Your task to perform on an android device: Go to Amazon Image 0: 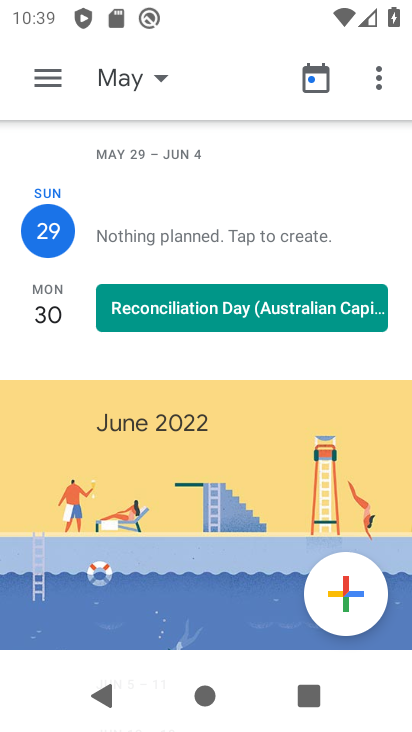
Step 0: press home button
Your task to perform on an android device: Go to Amazon Image 1: 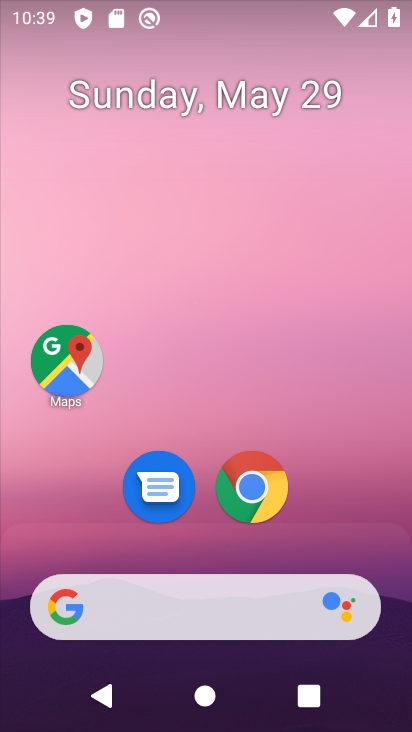
Step 1: click (242, 481)
Your task to perform on an android device: Go to Amazon Image 2: 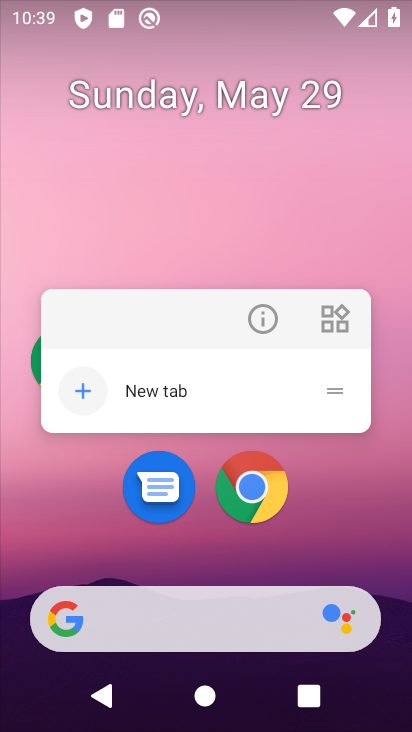
Step 2: click (248, 485)
Your task to perform on an android device: Go to Amazon Image 3: 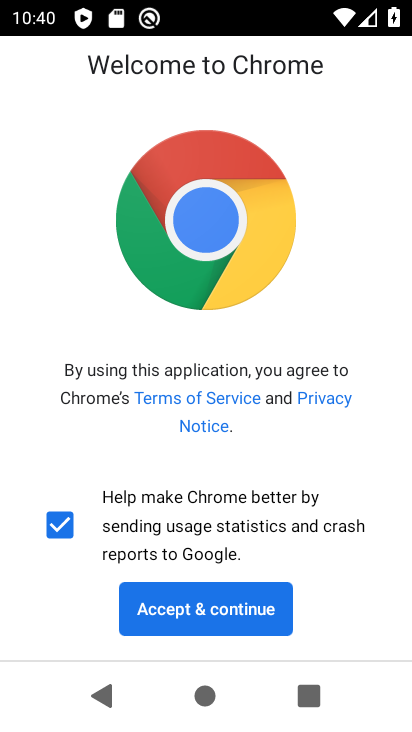
Step 3: click (208, 606)
Your task to perform on an android device: Go to Amazon Image 4: 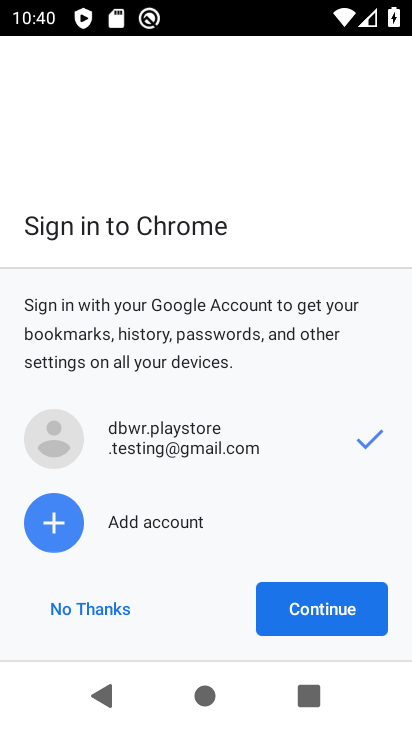
Step 4: click (210, 616)
Your task to perform on an android device: Go to Amazon Image 5: 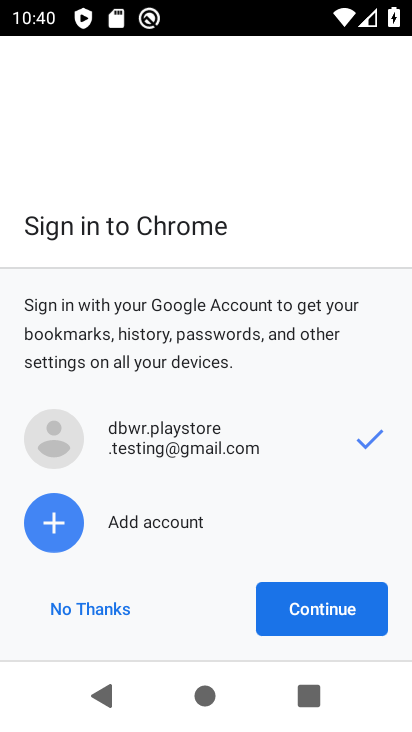
Step 5: click (352, 612)
Your task to perform on an android device: Go to Amazon Image 6: 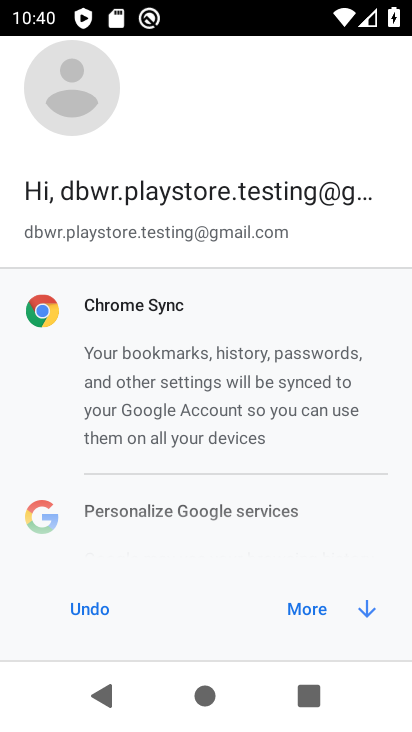
Step 6: click (355, 603)
Your task to perform on an android device: Go to Amazon Image 7: 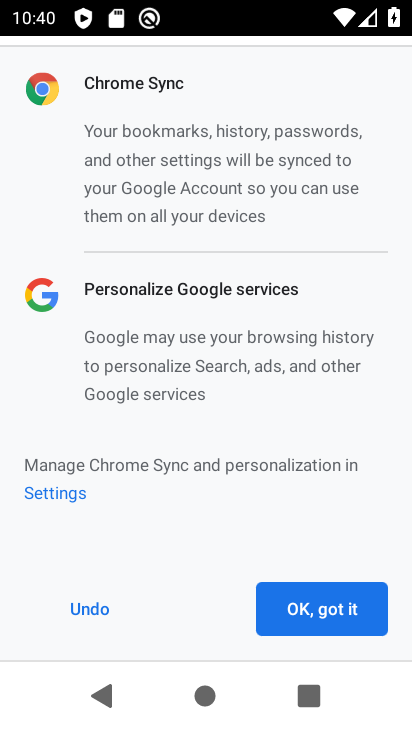
Step 7: click (321, 615)
Your task to perform on an android device: Go to Amazon Image 8: 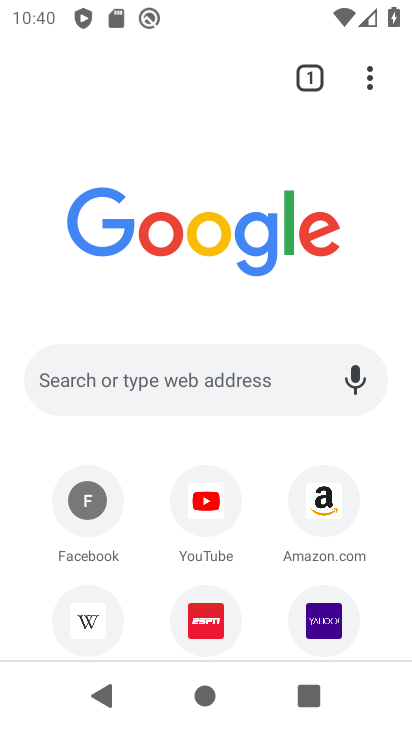
Step 8: click (328, 501)
Your task to perform on an android device: Go to Amazon Image 9: 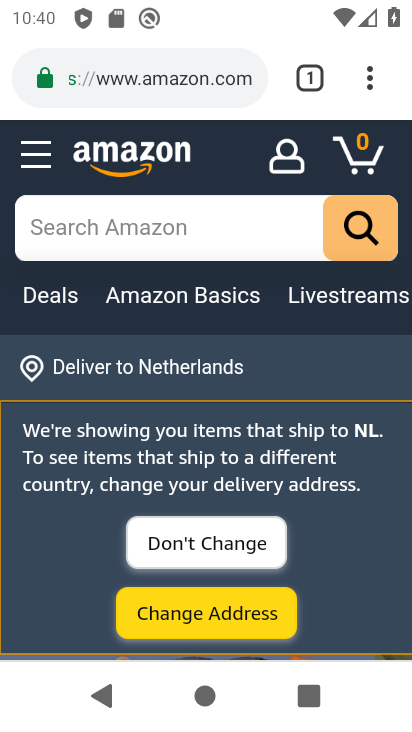
Step 9: click (196, 545)
Your task to perform on an android device: Go to Amazon Image 10: 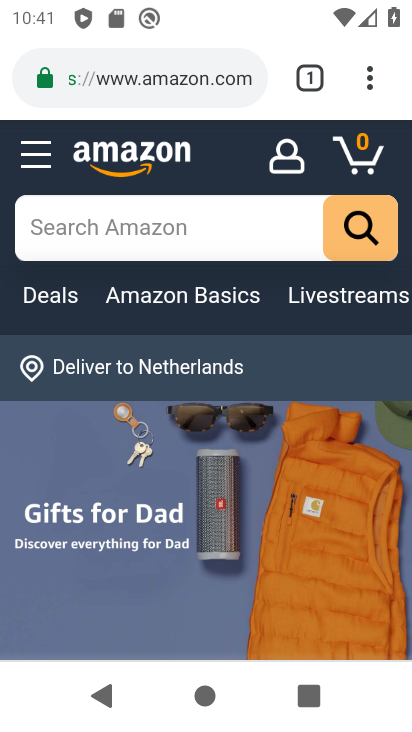
Step 10: task complete